Your task to perform on an android device: turn off location history Image 0: 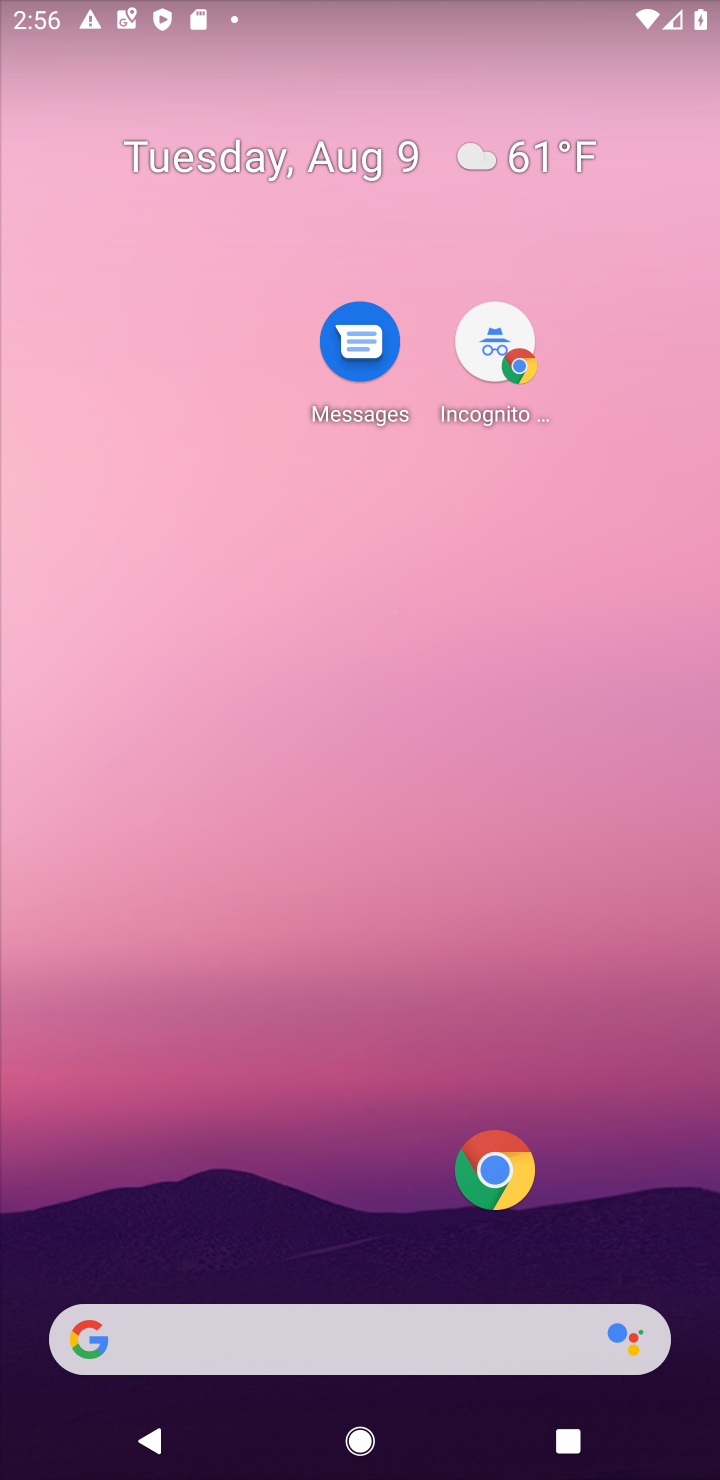
Step 0: drag from (240, 1136) to (388, 114)
Your task to perform on an android device: turn off location history Image 1: 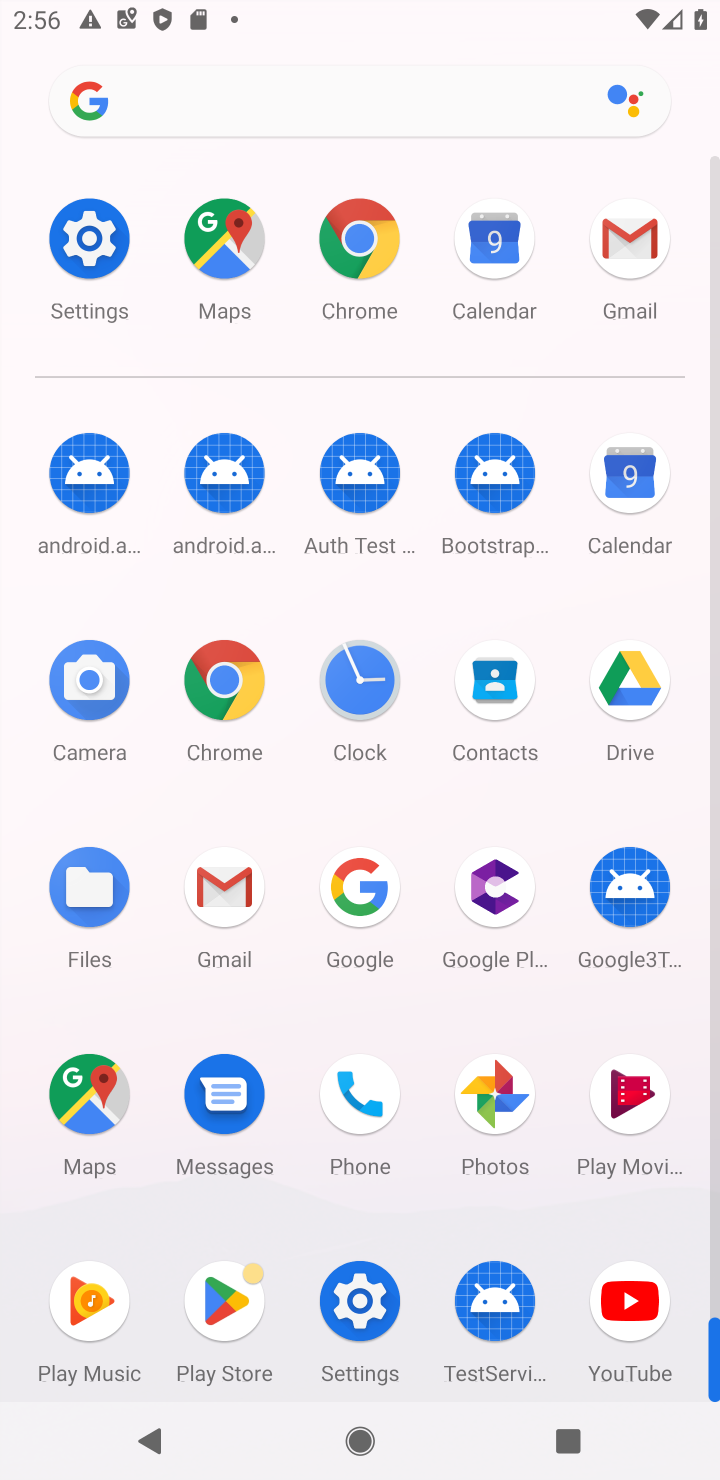
Step 1: click (358, 1281)
Your task to perform on an android device: turn off location history Image 2: 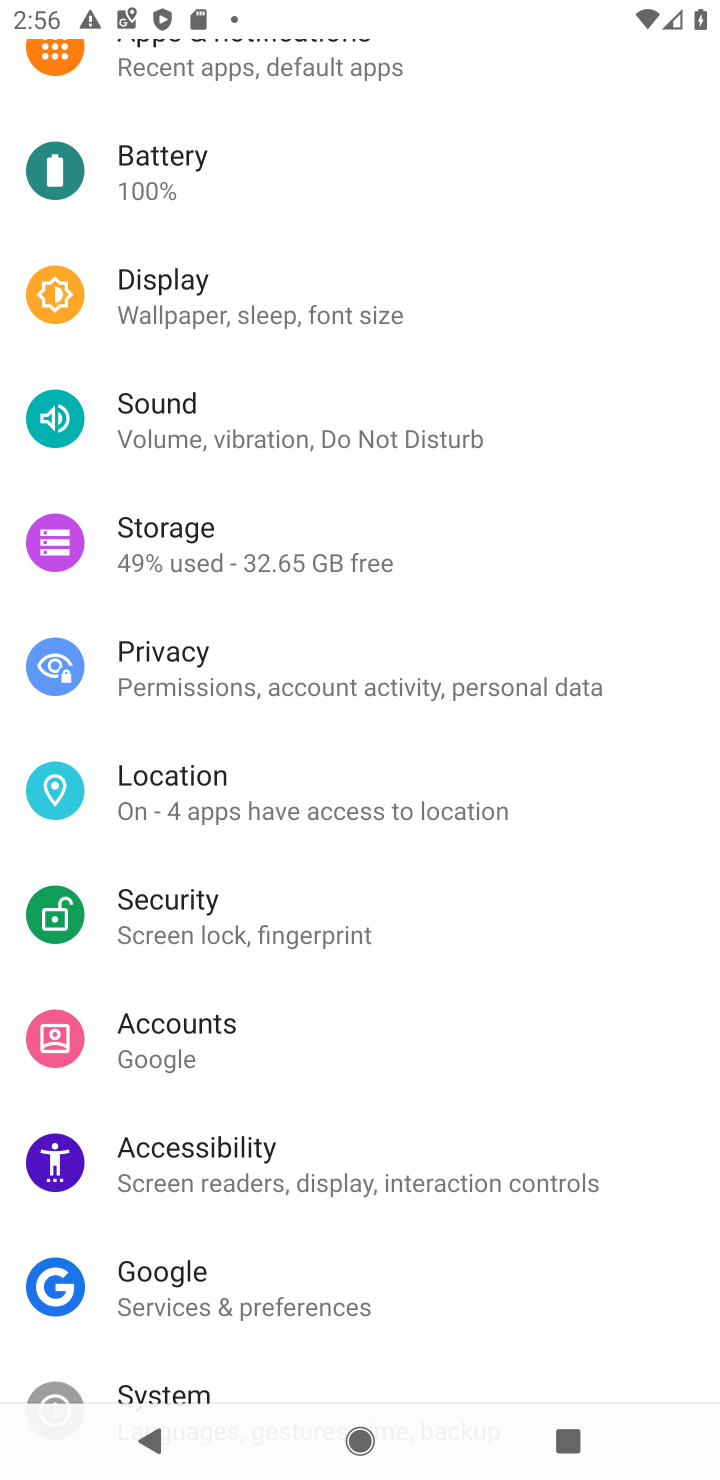
Step 2: click (175, 819)
Your task to perform on an android device: turn off location history Image 3: 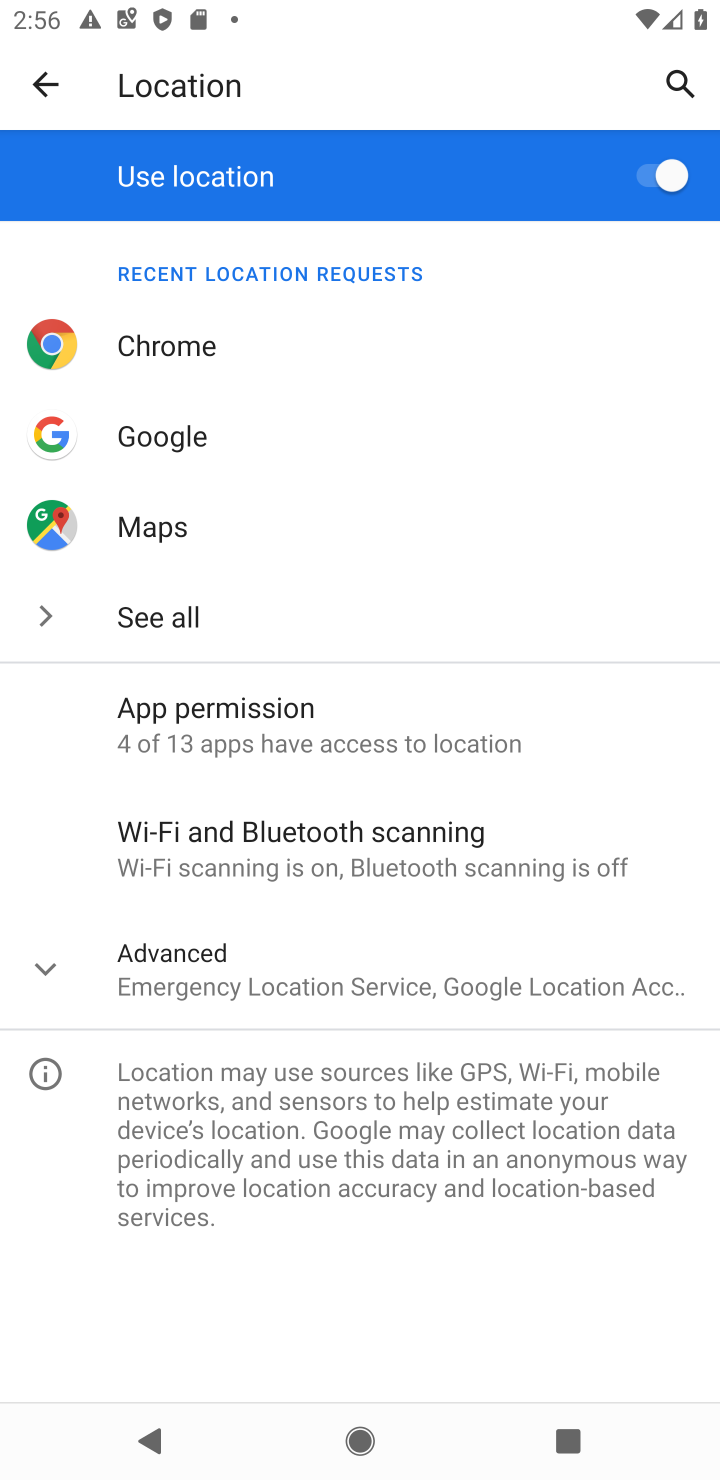
Step 3: click (229, 982)
Your task to perform on an android device: turn off location history Image 4: 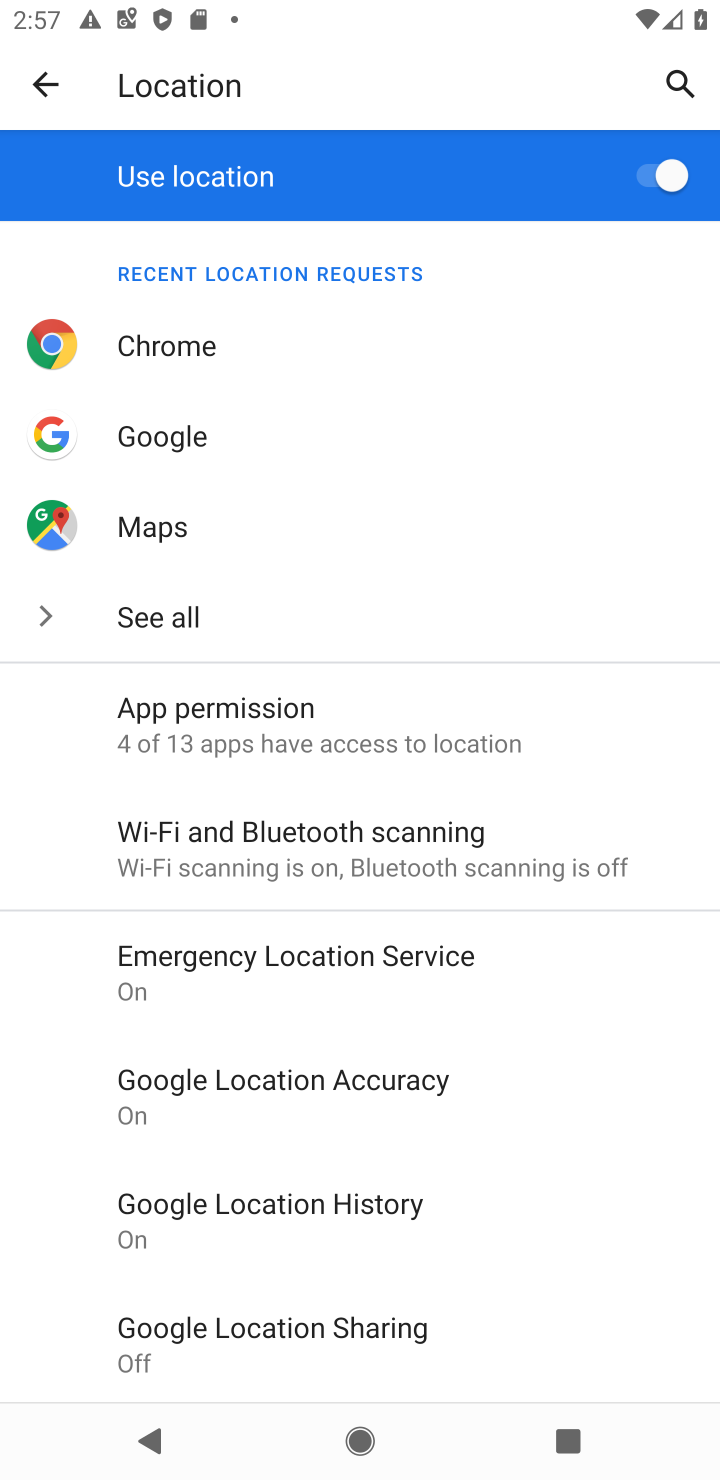
Step 4: click (283, 1199)
Your task to perform on an android device: turn off location history Image 5: 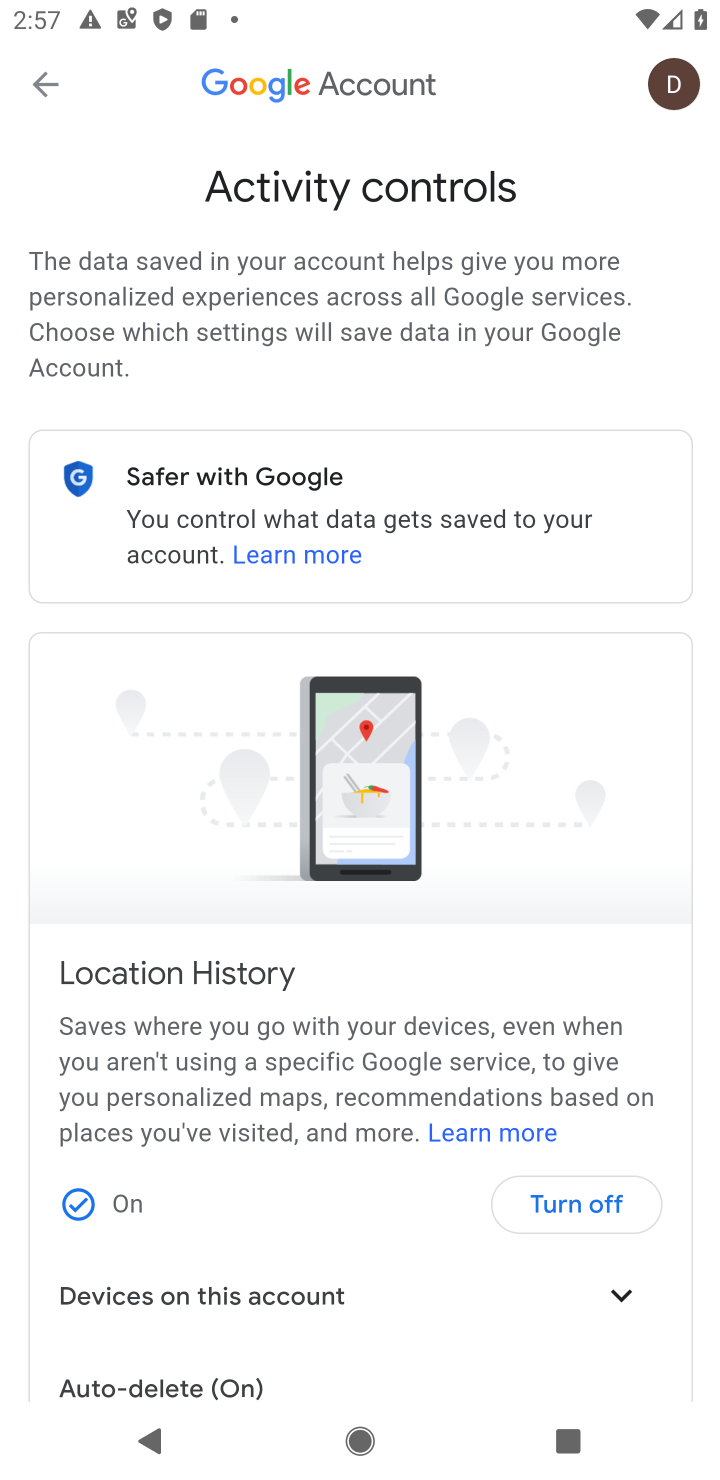
Step 5: click (585, 1205)
Your task to perform on an android device: turn off location history Image 6: 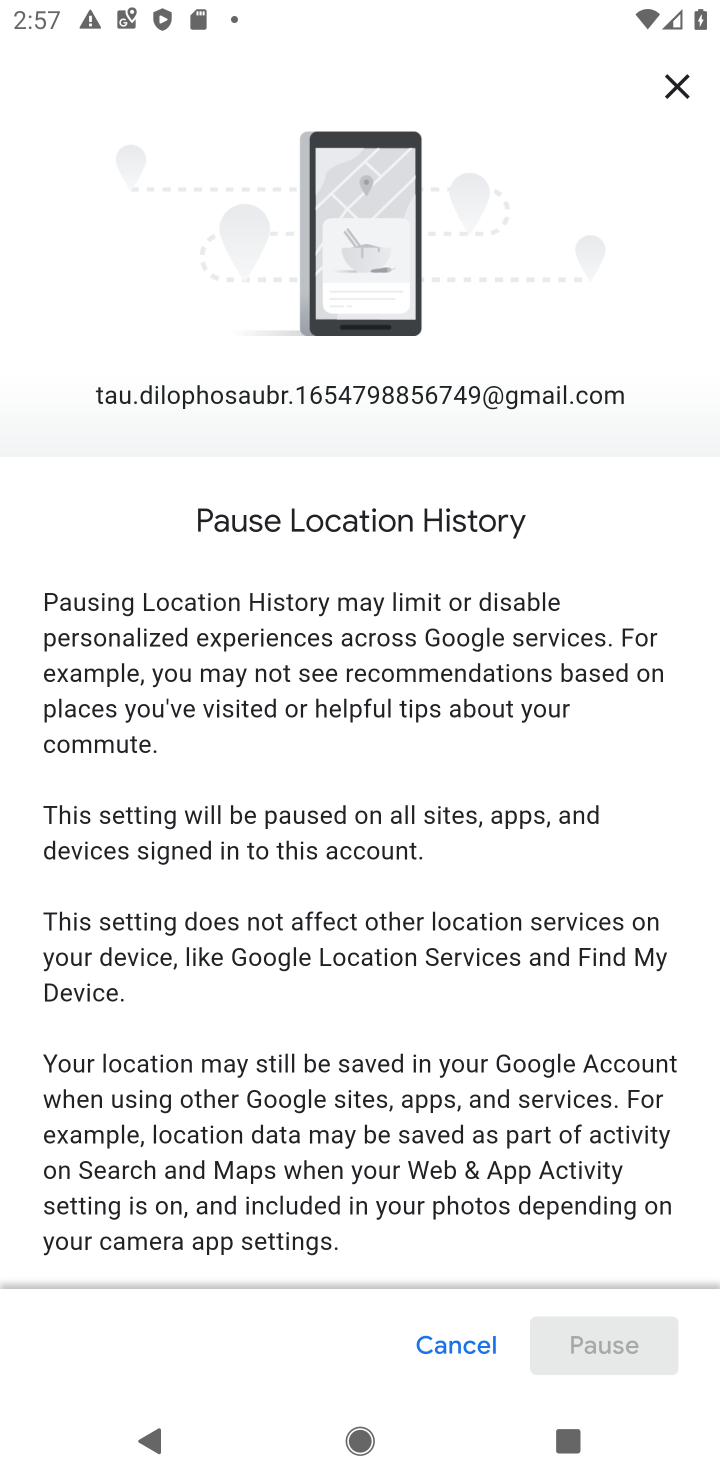
Step 6: drag from (549, 1187) to (581, 1)
Your task to perform on an android device: turn off location history Image 7: 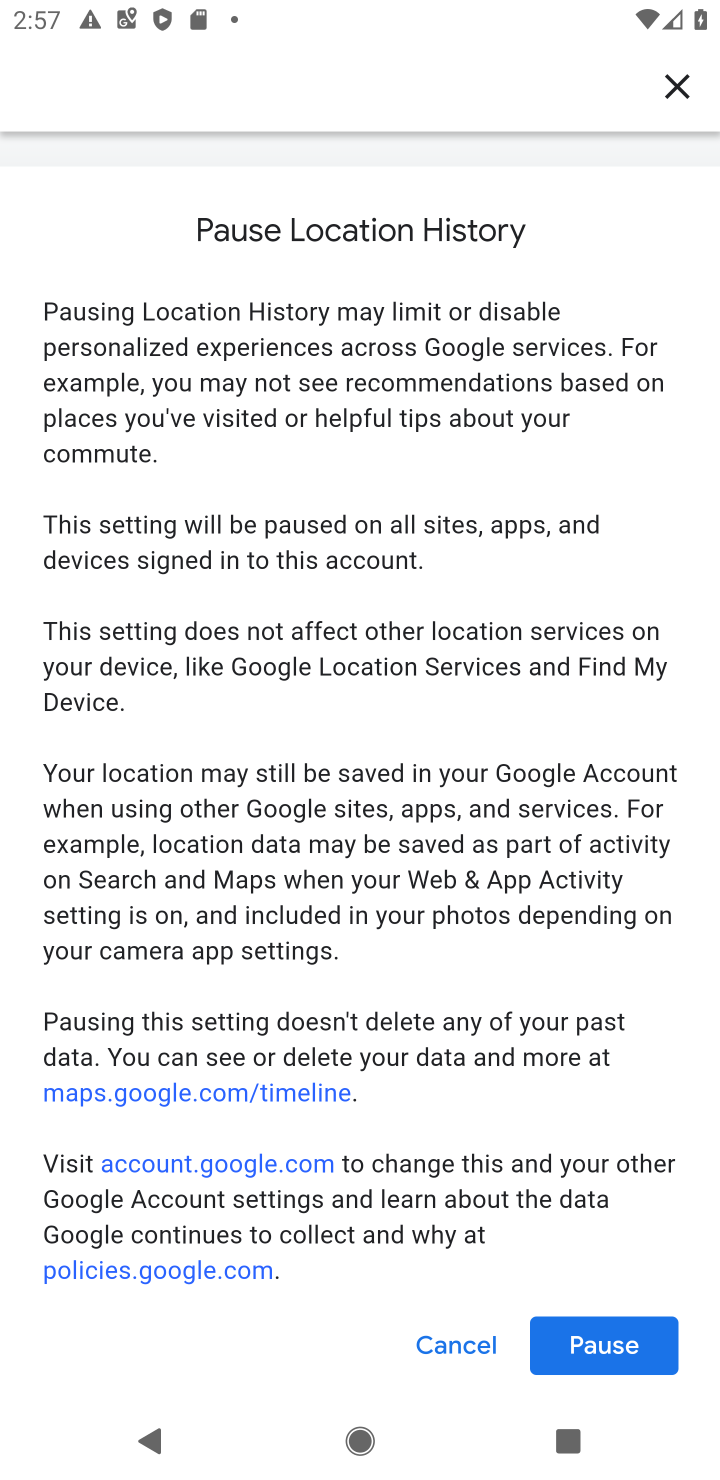
Step 7: click (603, 1341)
Your task to perform on an android device: turn off location history Image 8: 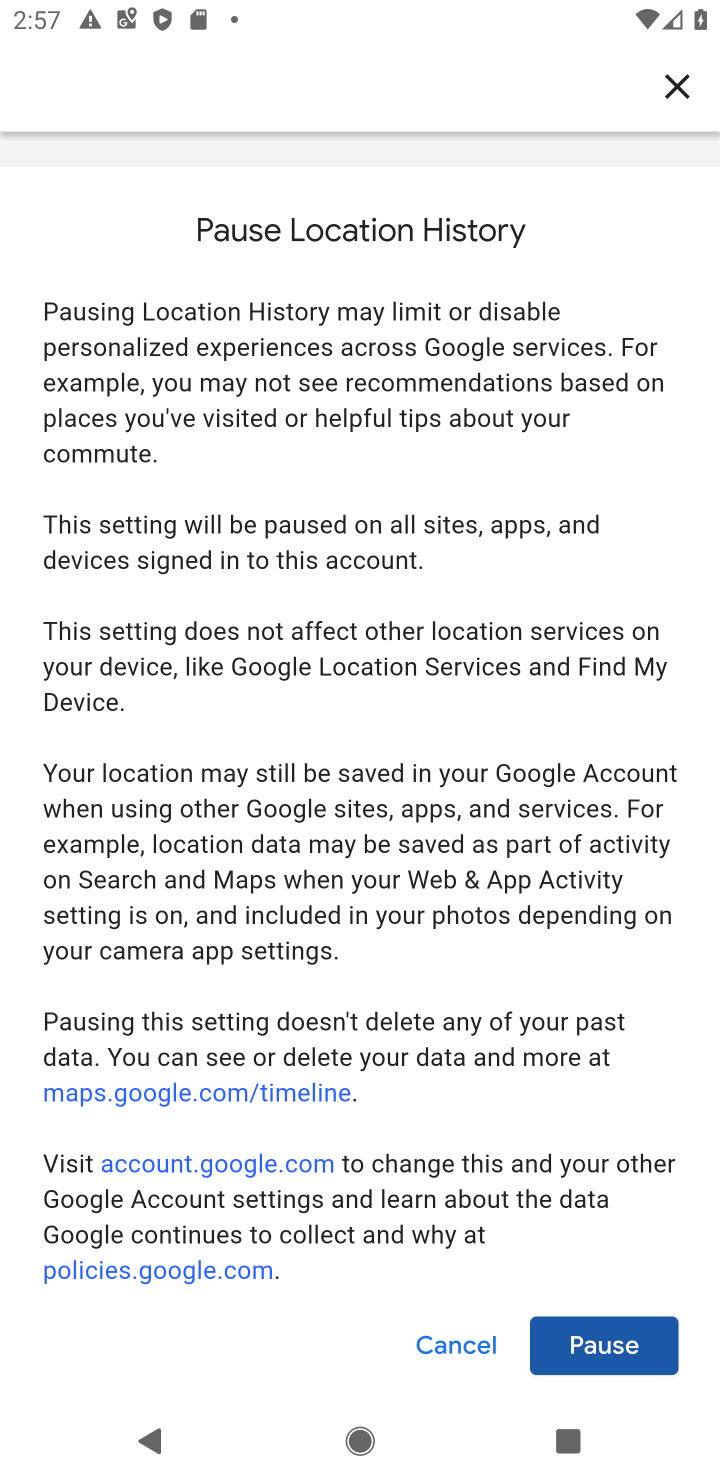
Step 8: click (603, 1341)
Your task to perform on an android device: turn off location history Image 9: 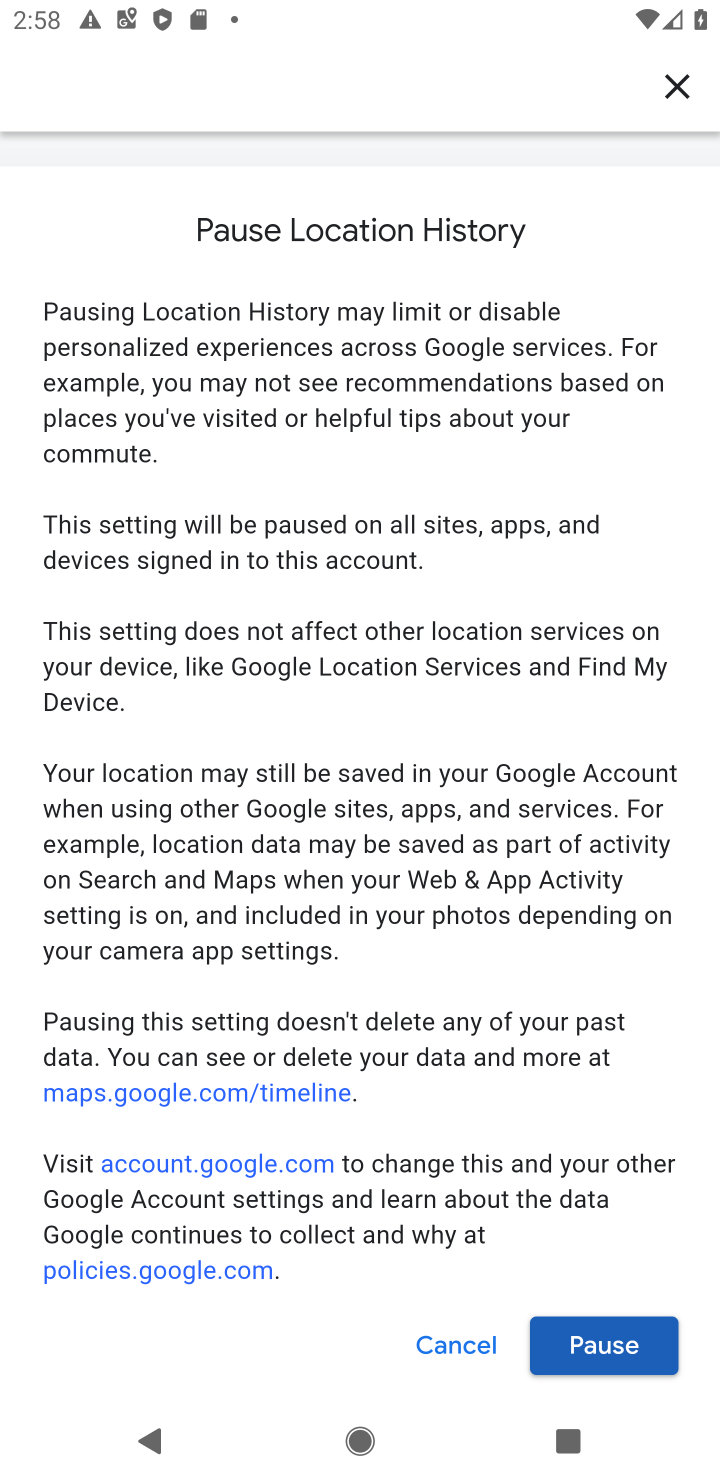
Step 9: click (626, 1342)
Your task to perform on an android device: turn off location history Image 10: 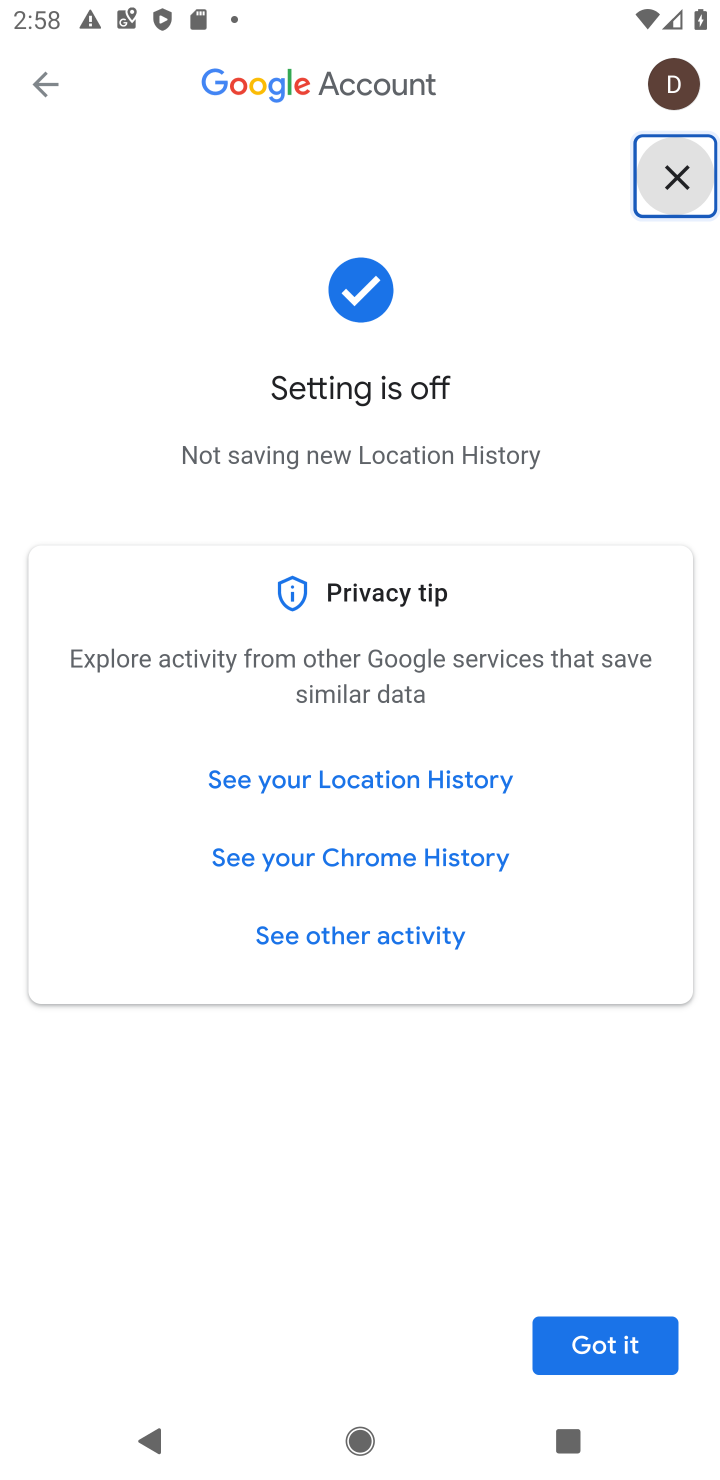
Step 10: click (624, 1349)
Your task to perform on an android device: turn off location history Image 11: 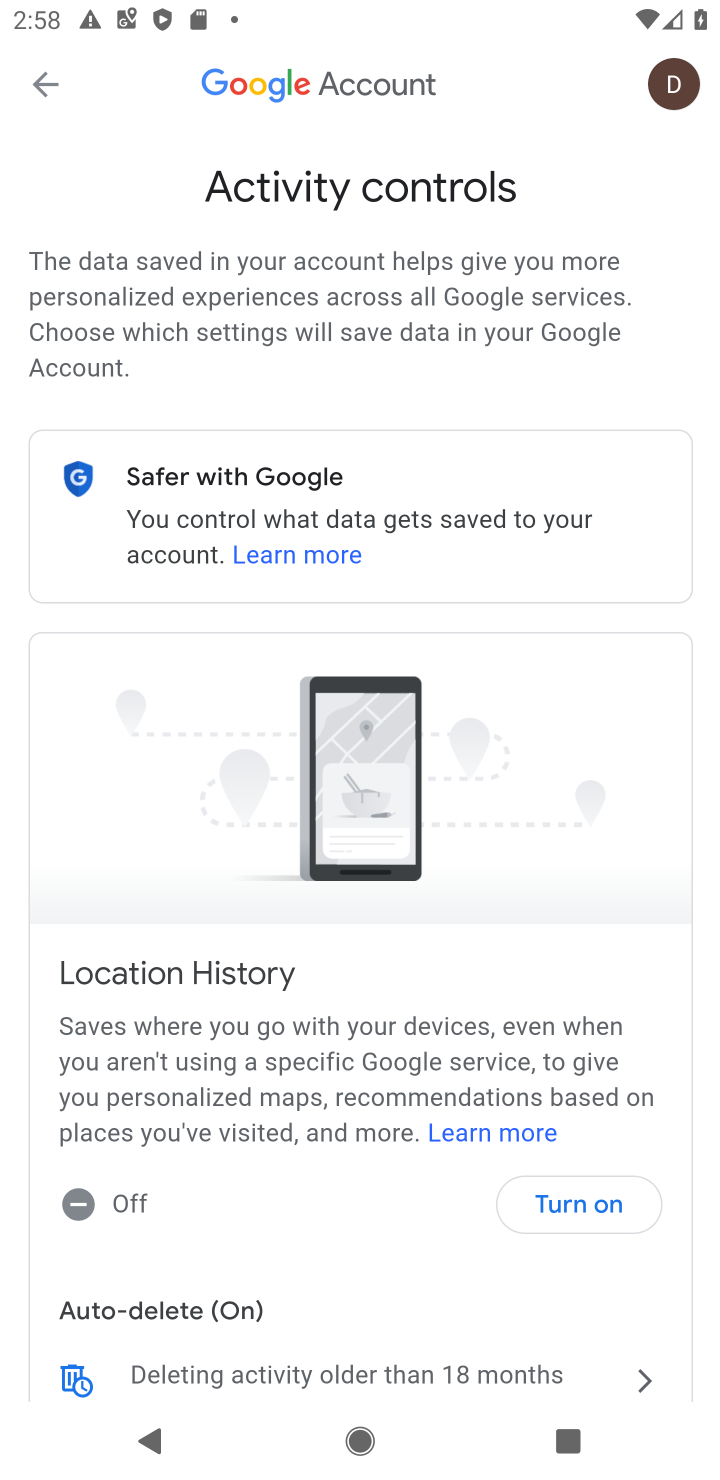
Step 11: task complete